Your task to perform on an android device: Open Wikipedia Image 0: 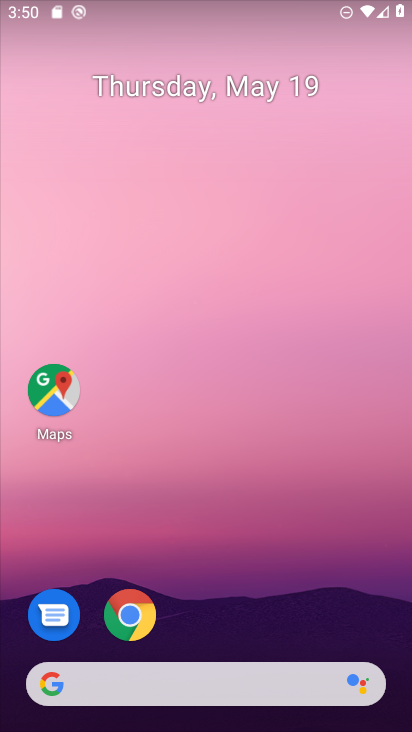
Step 0: click (142, 611)
Your task to perform on an android device: Open Wikipedia Image 1: 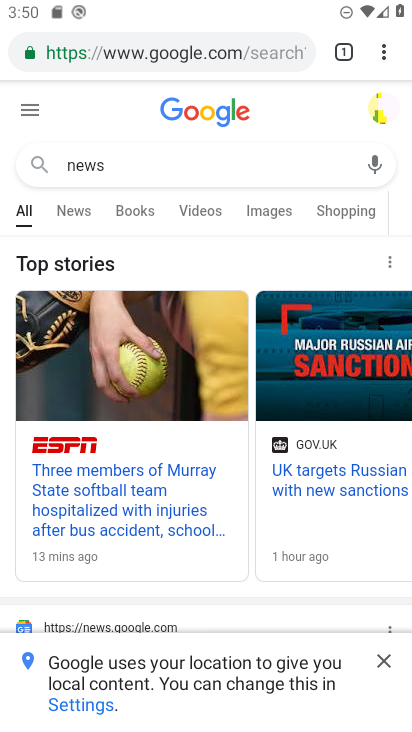
Step 1: click (384, 56)
Your task to perform on an android device: Open Wikipedia Image 2: 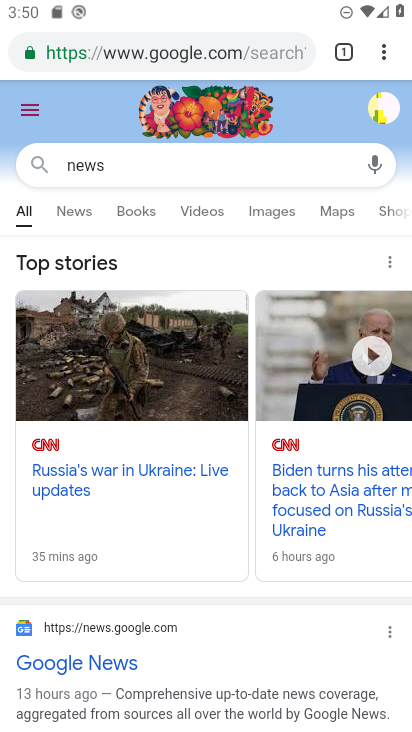
Step 2: click (350, 49)
Your task to perform on an android device: Open Wikipedia Image 3: 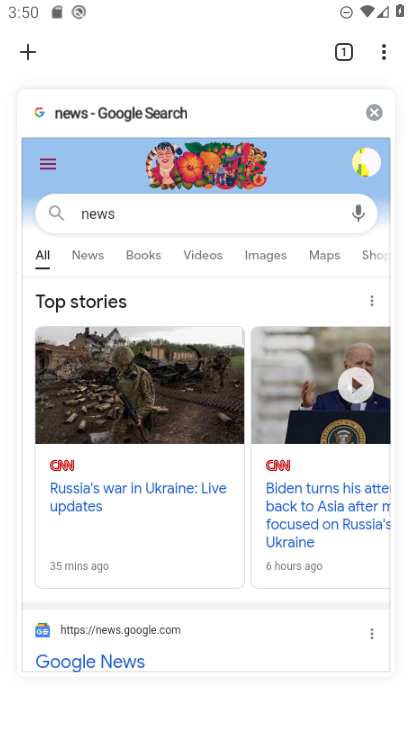
Step 3: click (34, 55)
Your task to perform on an android device: Open Wikipedia Image 4: 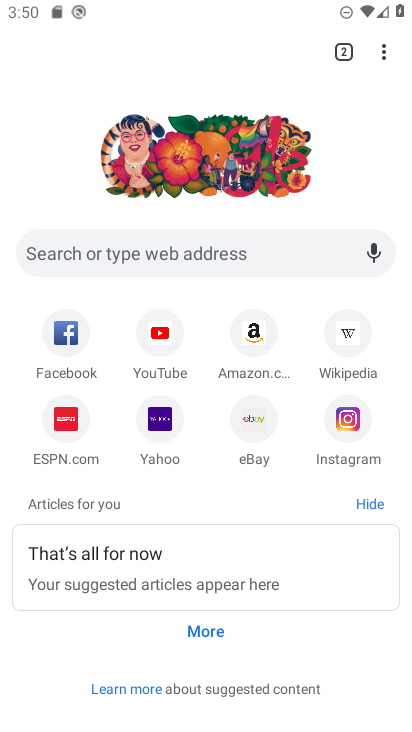
Step 4: click (359, 325)
Your task to perform on an android device: Open Wikipedia Image 5: 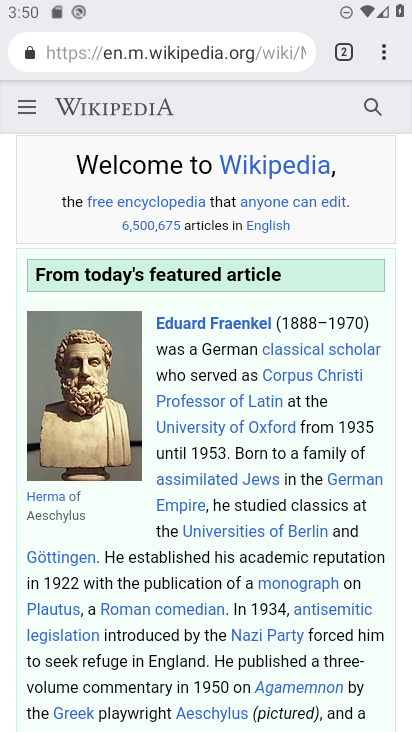
Step 5: task complete